Your task to perform on an android device: check the backup settings in the google photos Image 0: 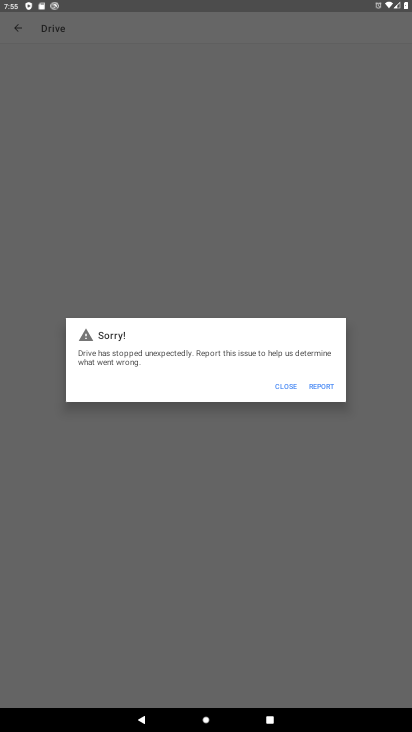
Step 0: press home button
Your task to perform on an android device: check the backup settings in the google photos Image 1: 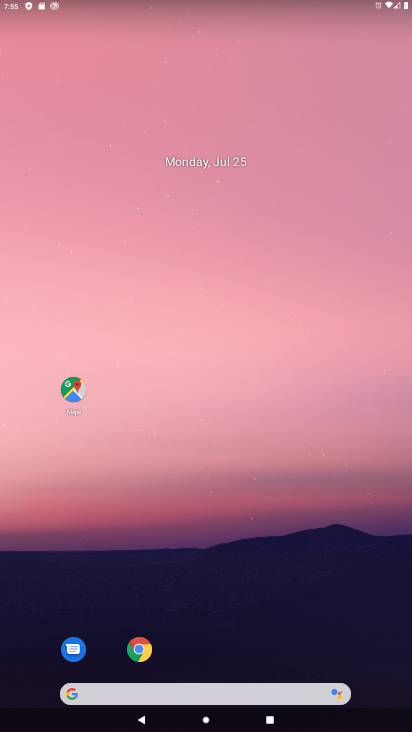
Step 1: drag from (385, 670) to (347, 320)
Your task to perform on an android device: check the backup settings in the google photos Image 2: 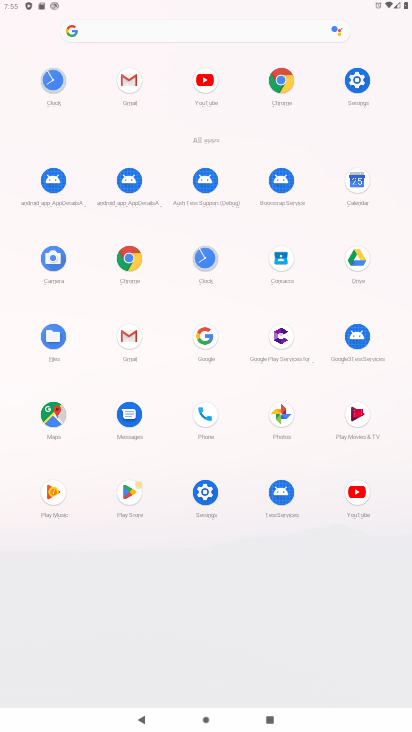
Step 2: click (280, 414)
Your task to perform on an android device: check the backup settings in the google photos Image 3: 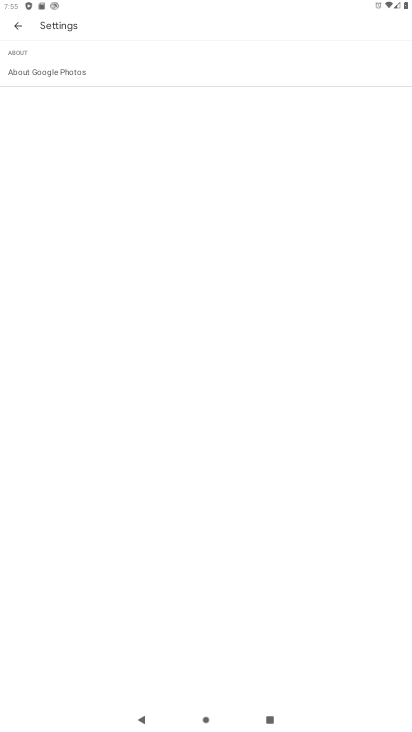
Step 3: press back button
Your task to perform on an android device: check the backup settings in the google photos Image 4: 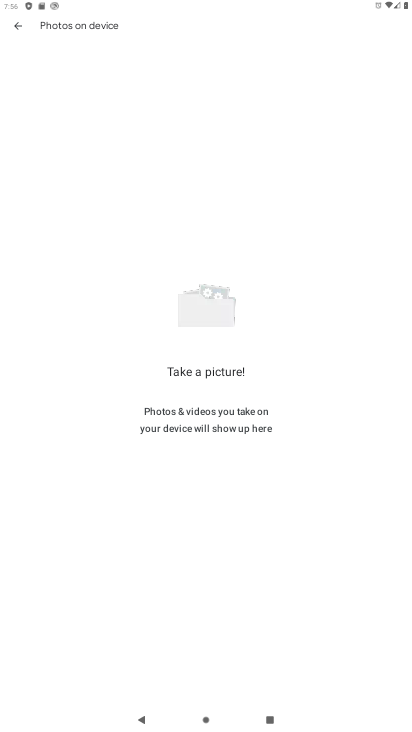
Step 4: press back button
Your task to perform on an android device: check the backup settings in the google photos Image 5: 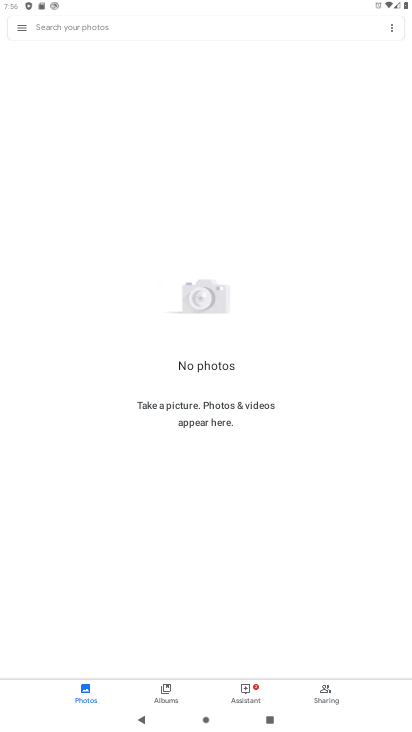
Step 5: click (23, 28)
Your task to perform on an android device: check the backup settings in the google photos Image 6: 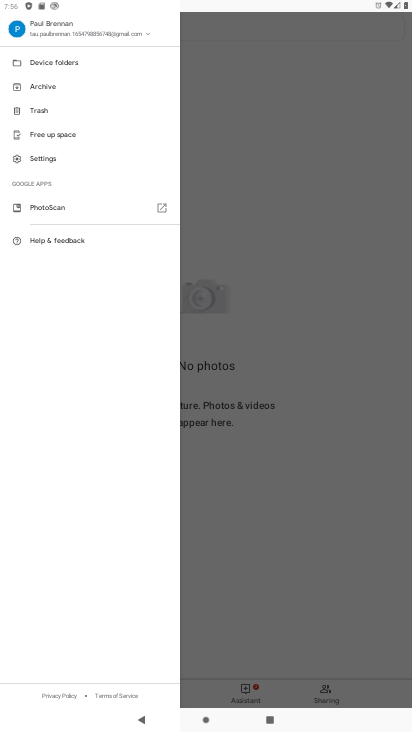
Step 6: click (39, 161)
Your task to perform on an android device: check the backup settings in the google photos Image 7: 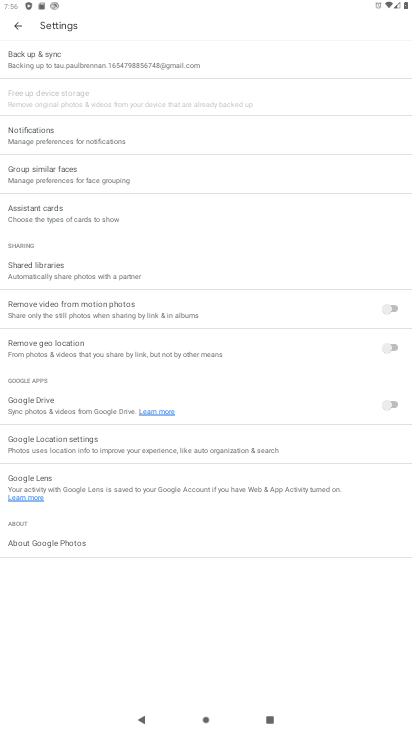
Step 7: click (82, 54)
Your task to perform on an android device: check the backup settings in the google photos Image 8: 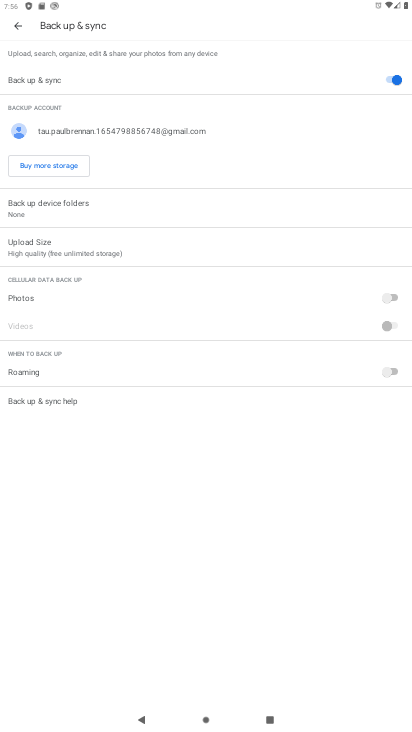
Step 8: task complete